Your task to perform on an android device: Open Google Chrome and open the bookmarks view Image 0: 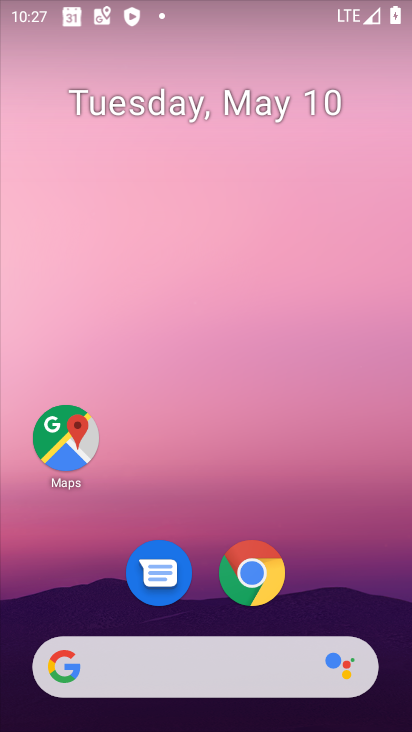
Step 0: click (339, 473)
Your task to perform on an android device: Open Google Chrome and open the bookmarks view Image 1: 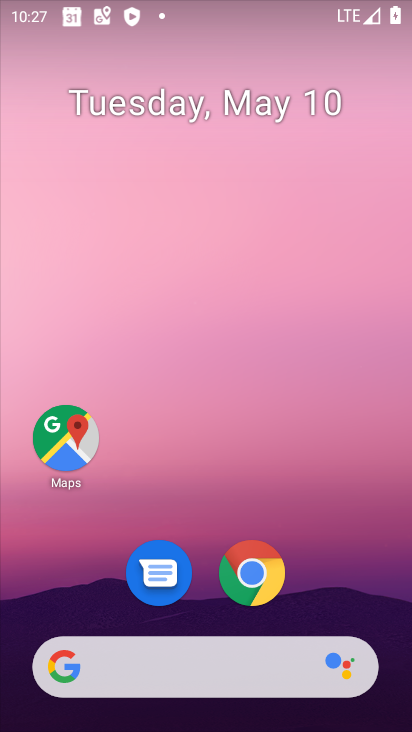
Step 1: click (251, 571)
Your task to perform on an android device: Open Google Chrome and open the bookmarks view Image 2: 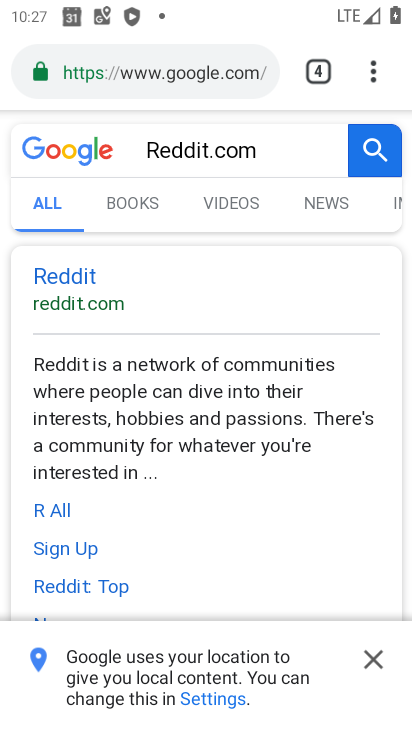
Step 2: click (374, 68)
Your task to perform on an android device: Open Google Chrome and open the bookmarks view Image 3: 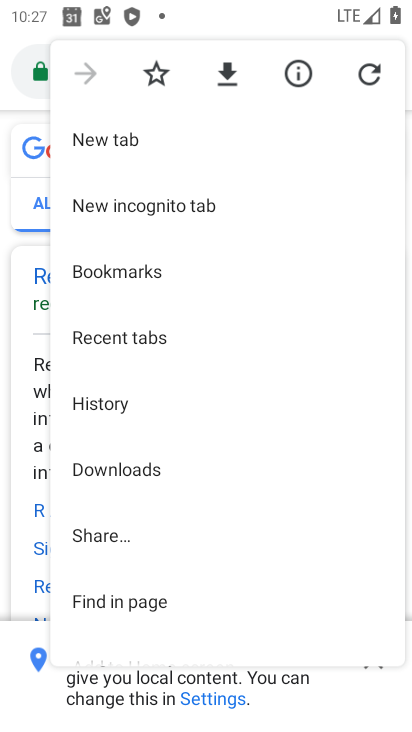
Step 3: click (145, 275)
Your task to perform on an android device: Open Google Chrome and open the bookmarks view Image 4: 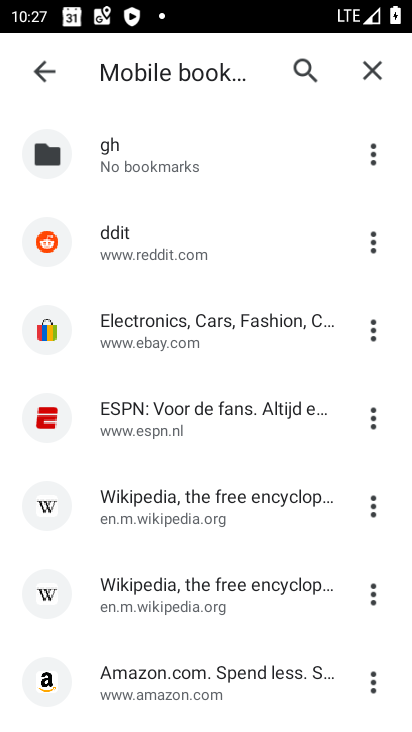
Step 4: click (165, 153)
Your task to perform on an android device: Open Google Chrome and open the bookmarks view Image 5: 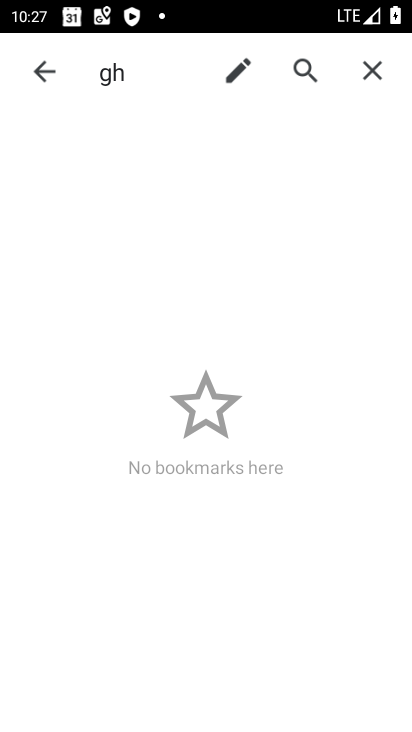
Step 5: task complete